Your task to perform on an android device: Go to Android settings Image 0: 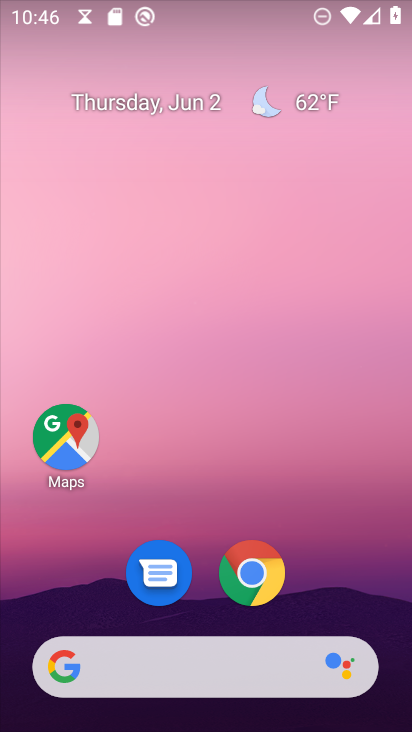
Step 0: drag from (342, 551) to (123, 131)
Your task to perform on an android device: Go to Android settings Image 1: 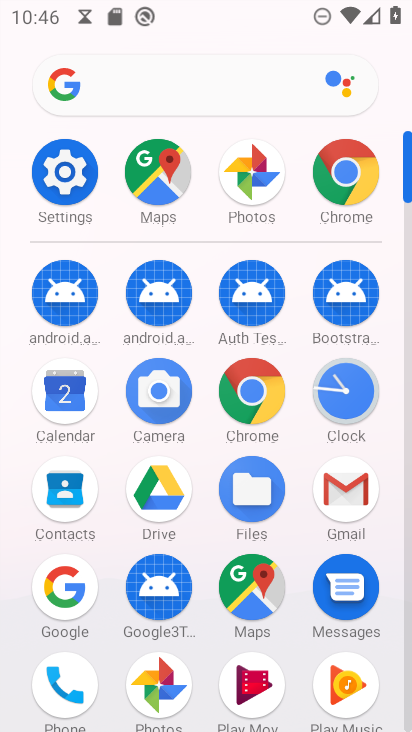
Step 1: click (66, 171)
Your task to perform on an android device: Go to Android settings Image 2: 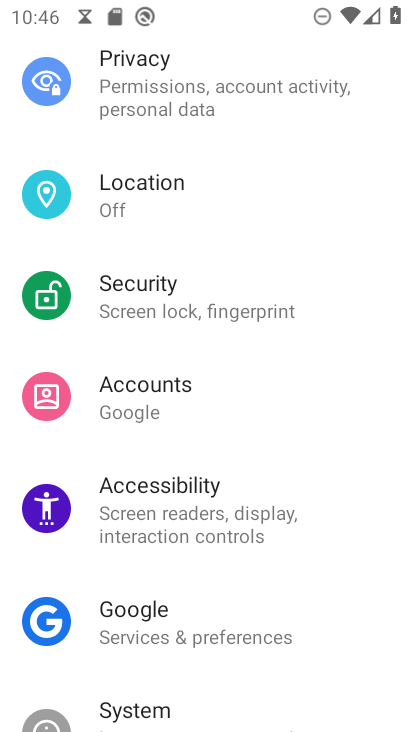
Step 2: task complete